Your task to perform on an android device: open a bookmark in the chrome app Image 0: 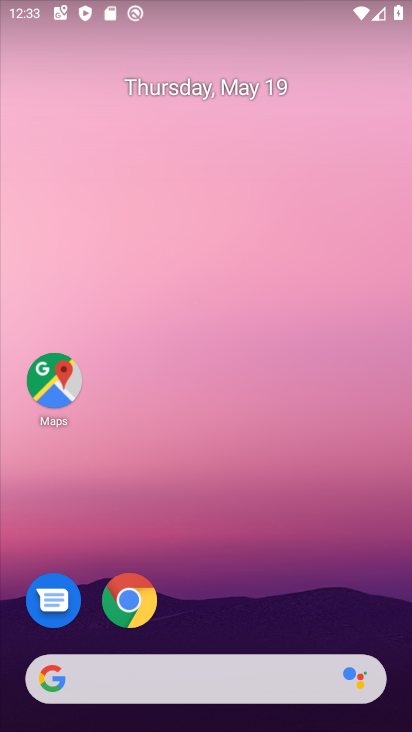
Step 0: click (135, 588)
Your task to perform on an android device: open a bookmark in the chrome app Image 1: 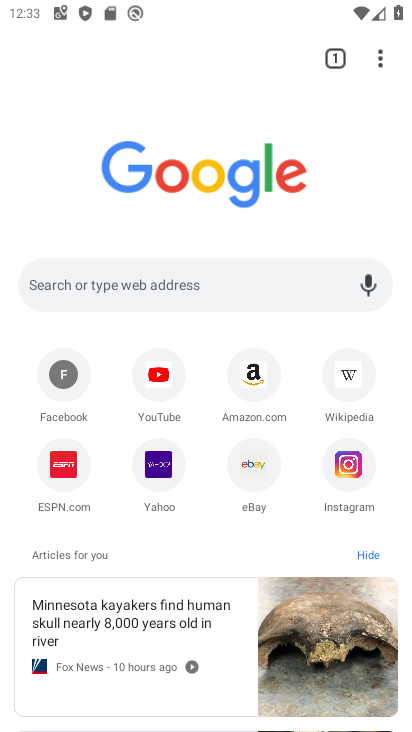
Step 1: click (386, 49)
Your task to perform on an android device: open a bookmark in the chrome app Image 2: 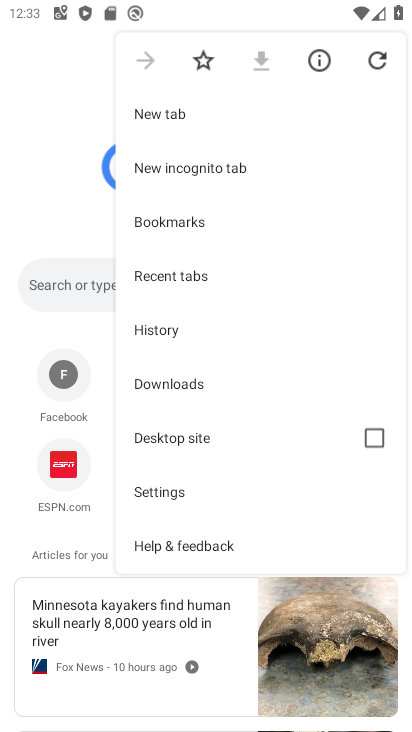
Step 2: click (220, 225)
Your task to perform on an android device: open a bookmark in the chrome app Image 3: 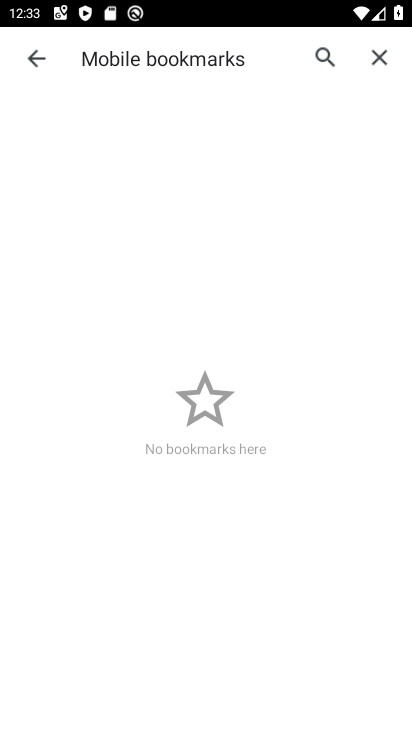
Step 3: task complete